Your task to perform on an android device: Open Youtube and go to the subscriptions tab Image 0: 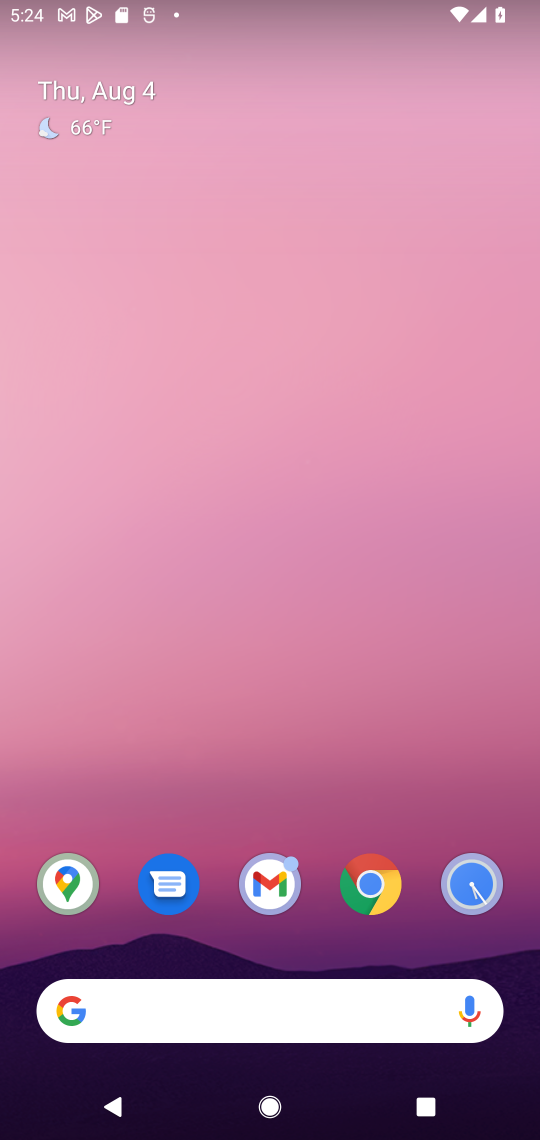
Step 0: drag from (305, 932) to (423, 98)
Your task to perform on an android device: Open Youtube and go to the subscriptions tab Image 1: 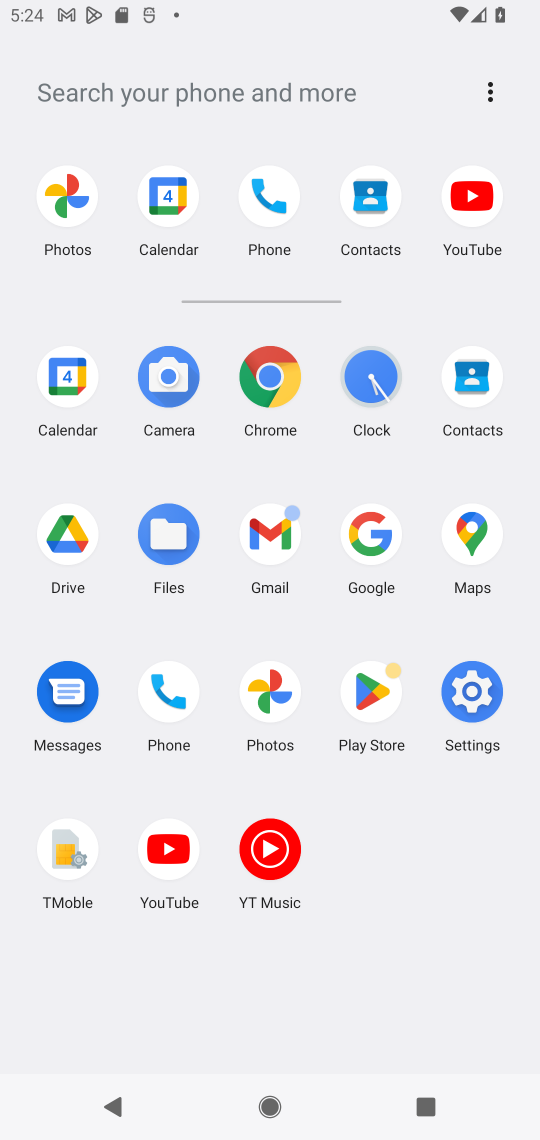
Step 1: click (158, 846)
Your task to perform on an android device: Open Youtube and go to the subscriptions tab Image 2: 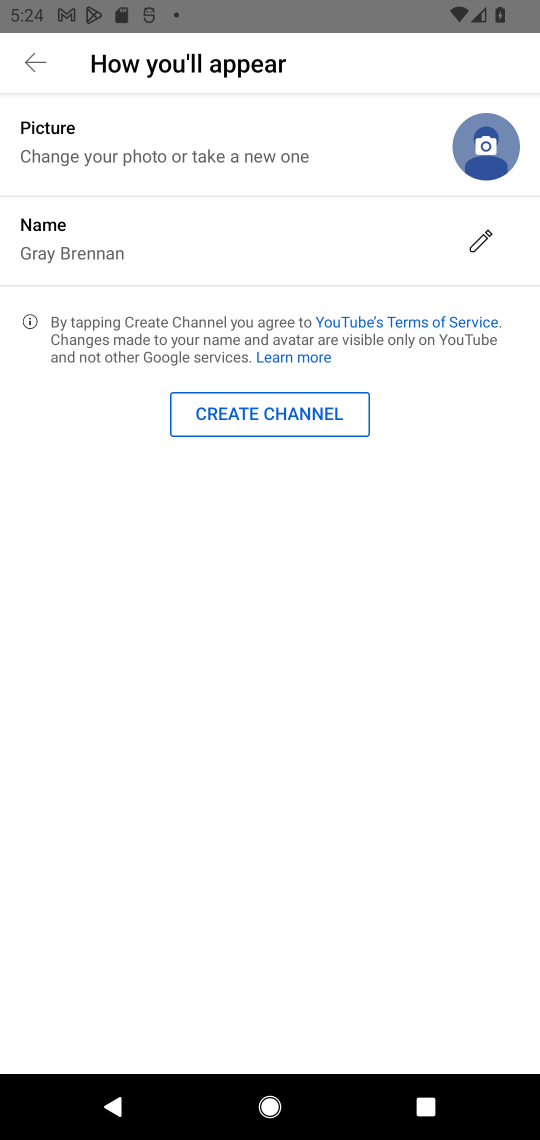
Step 2: press home button
Your task to perform on an android device: Open Youtube and go to the subscriptions tab Image 3: 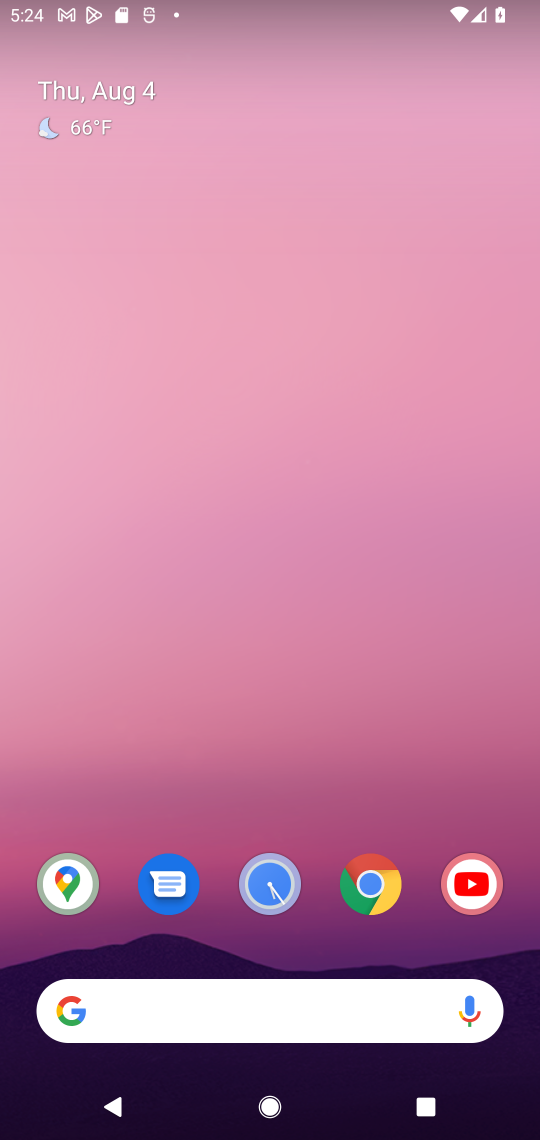
Step 3: click (475, 899)
Your task to perform on an android device: Open Youtube and go to the subscriptions tab Image 4: 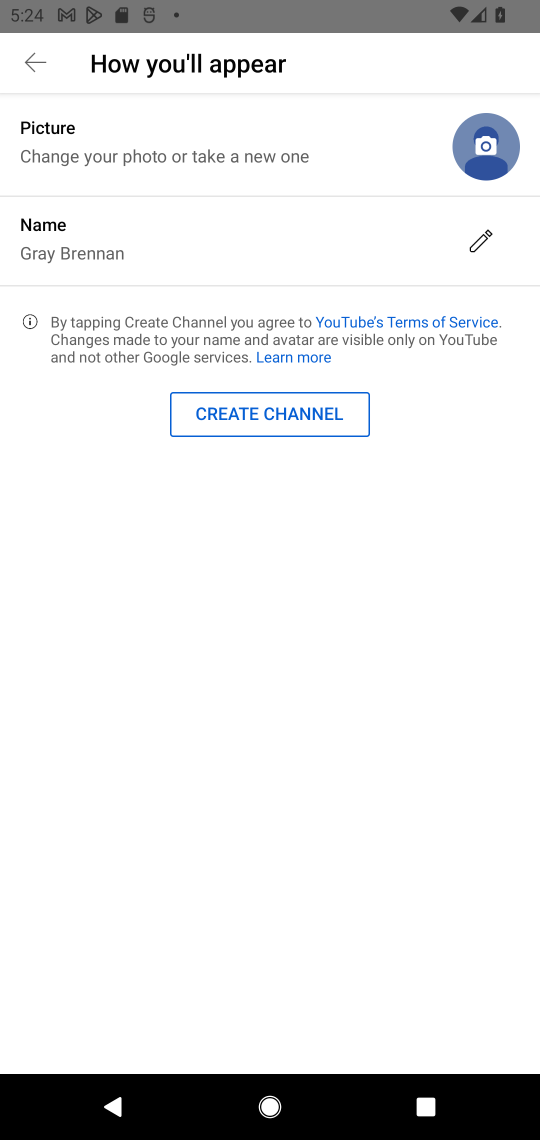
Step 4: click (38, 54)
Your task to perform on an android device: Open Youtube and go to the subscriptions tab Image 5: 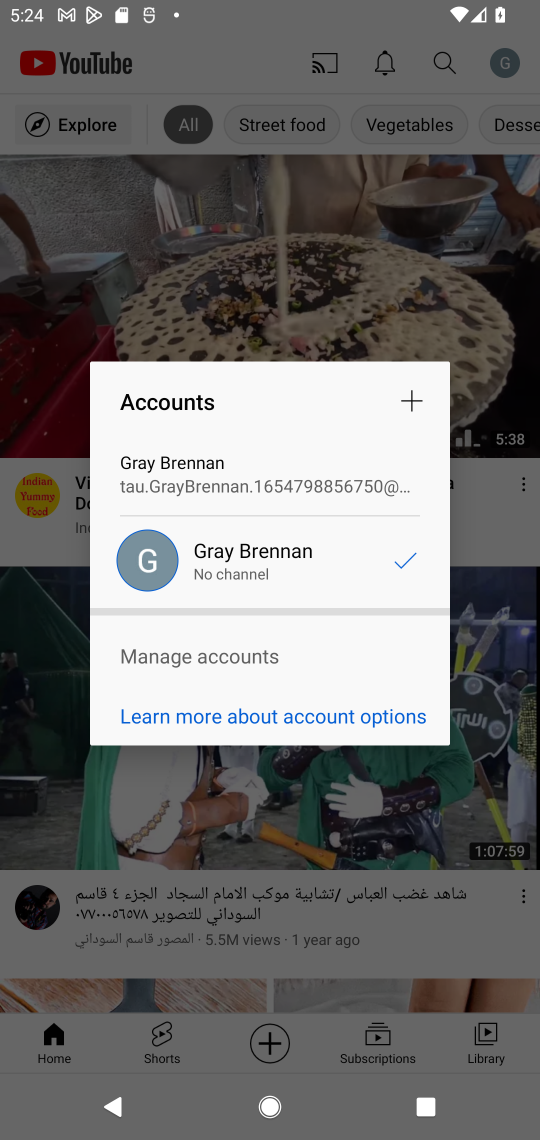
Step 5: click (408, 409)
Your task to perform on an android device: Open Youtube and go to the subscriptions tab Image 6: 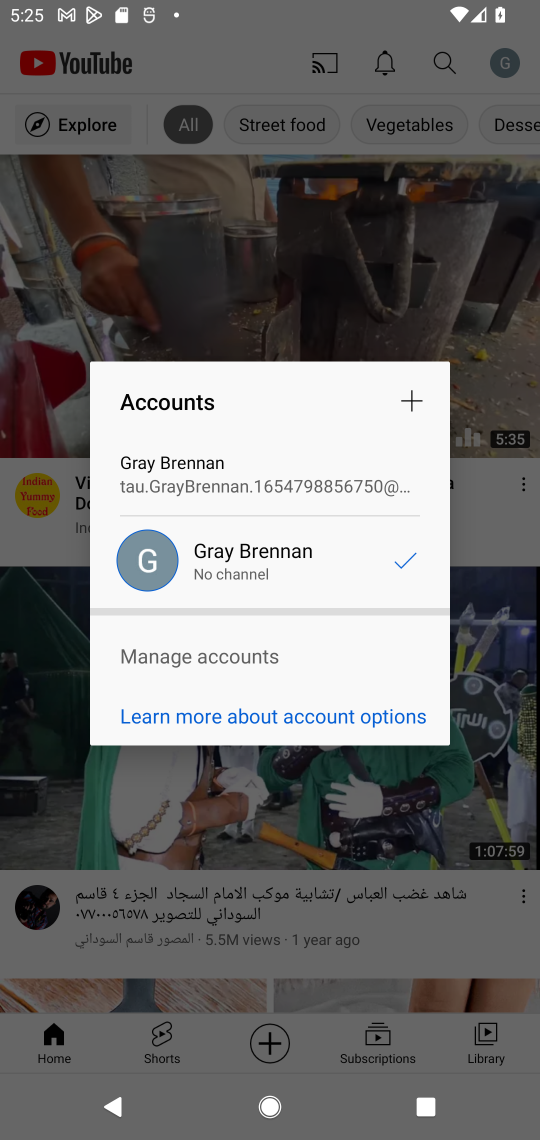
Step 6: click (353, 872)
Your task to perform on an android device: Open Youtube and go to the subscriptions tab Image 7: 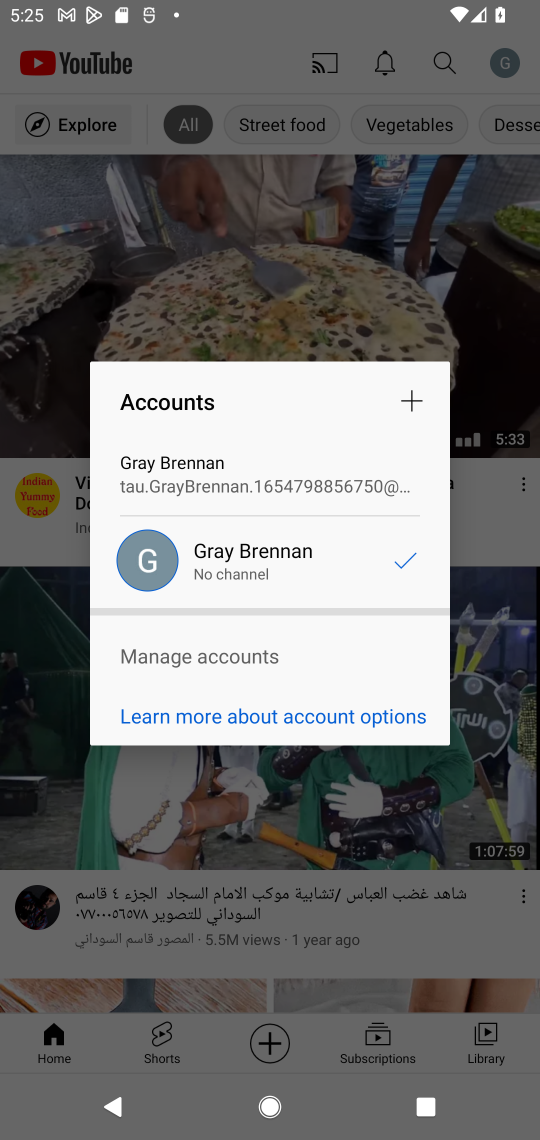
Step 7: click (390, 1020)
Your task to perform on an android device: Open Youtube and go to the subscriptions tab Image 8: 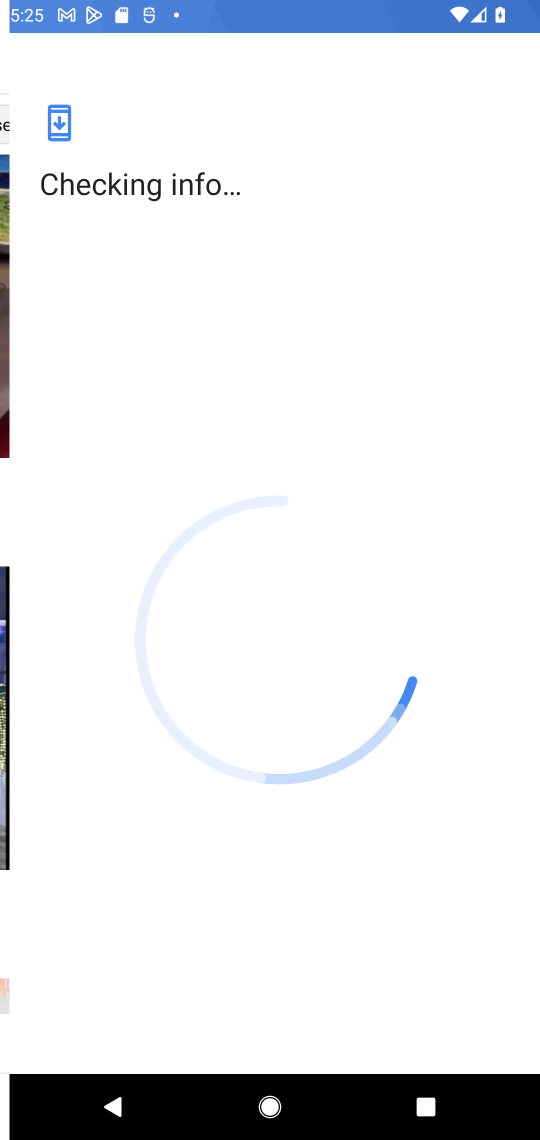
Step 8: click (390, 1020)
Your task to perform on an android device: Open Youtube and go to the subscriptions tab Image 9: 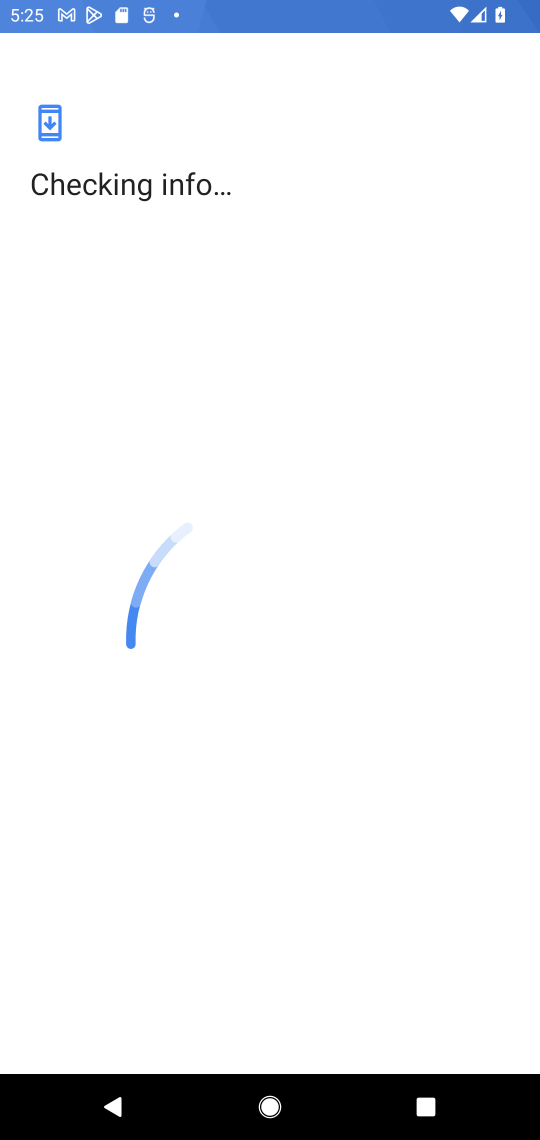
Step 9: task complete